Your task to perform on an android device: add a label to a message in the gmail app Image 0: 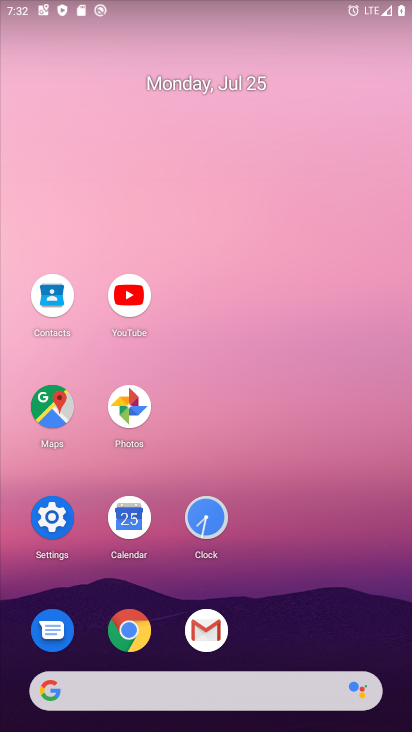
Step 0: click (199, 628)
Your task to perform on an android device: add a label to a message in the gmail app Image 1: 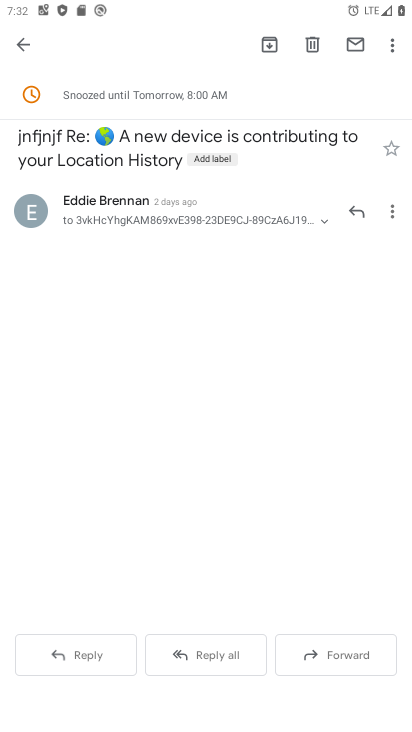
Step 1: click (393, 203)
Your task to perform on an android device: add a label to a message in the gmail app Image 2: 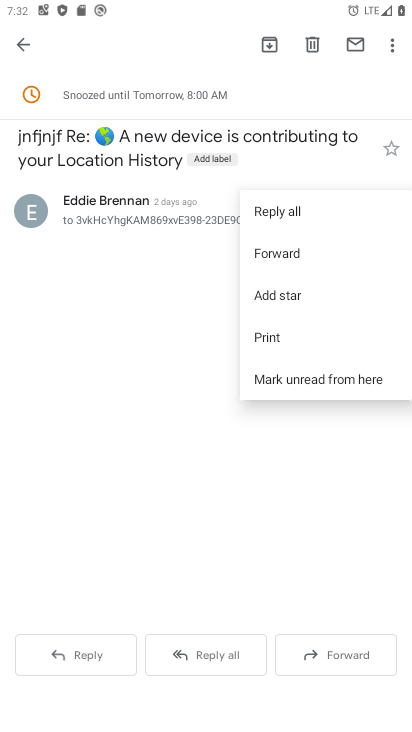
Step 2: click (293, 418)
Your task to perform on an android device: add a label to a message in the gmail app Image 3: 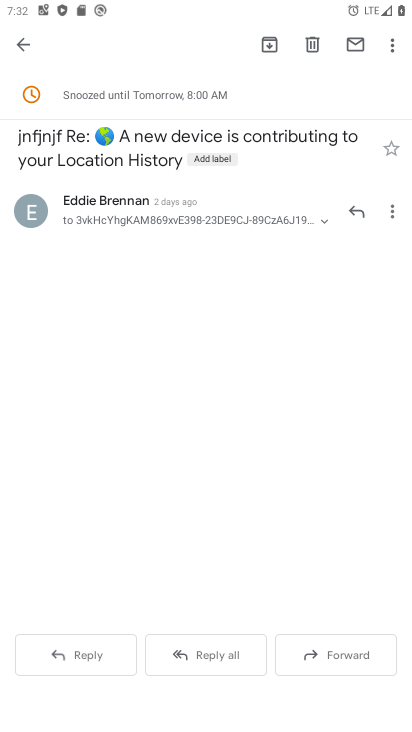
Step 3: click (396, 38)
Your task to perform on an android device: add a label to a message in the gmail app Image 4: 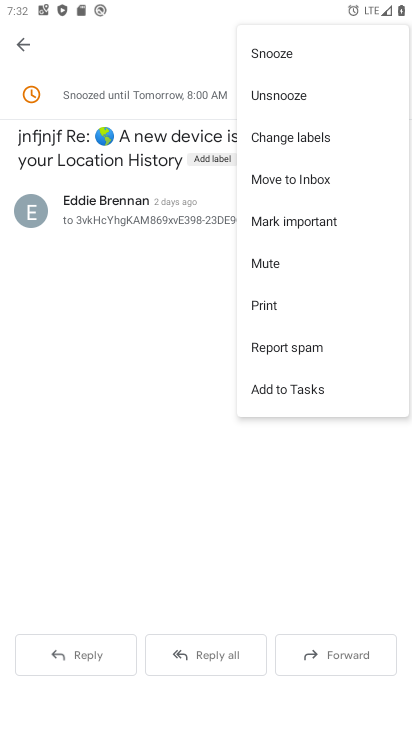
Step 4: click (292, 134)
Your task to perform on an android device: add a label to a message in the gmail app Image 5: 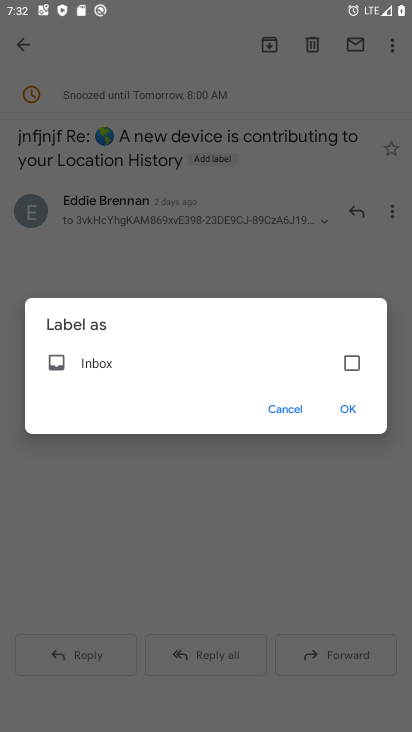
Step 5: click (353, 363)
Your task to perform on an android device: add a label to a message in the gmail app Image 6: 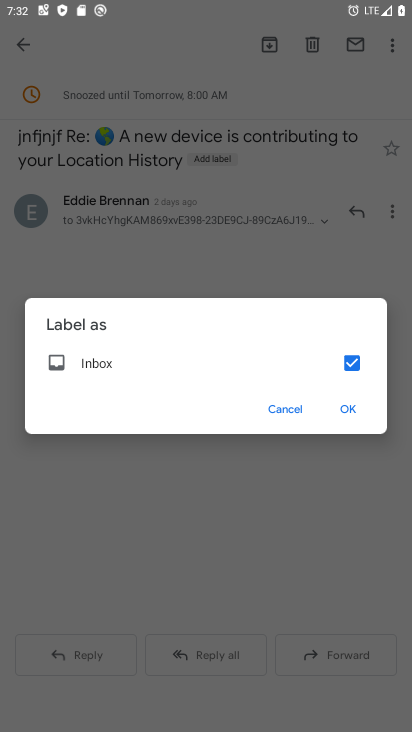
Step 6: click (344, 409)
Your task to perform on an android device: add a label to a message in the gmail app Image 7: 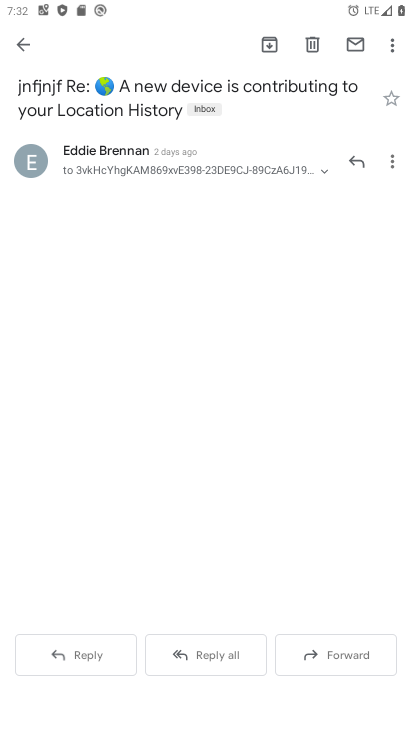
Step 7: task complete